Your task to perform on an android device: toggle improve location accuracy Image 0: 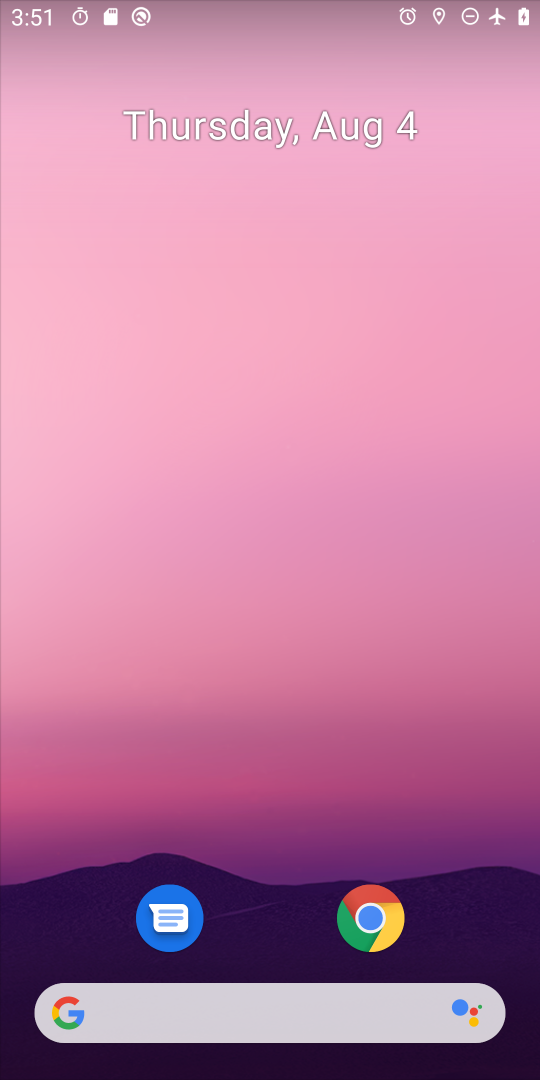
Step 0: drag from (258, 898) to (261, 260)
Your task to perform on an android device: toggle improve location accuracy Image 1: 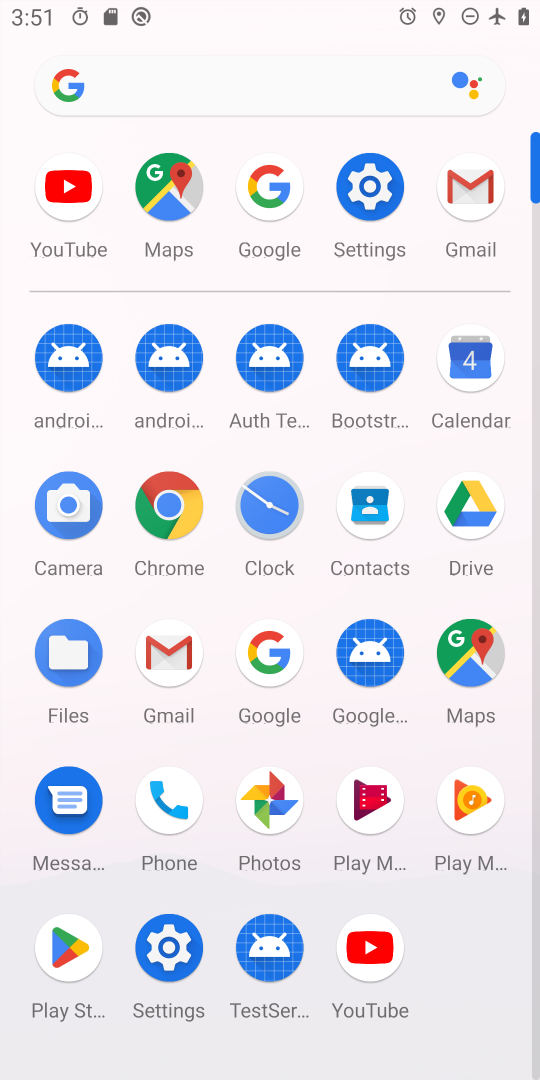
Step 1: click (389, 185)
Your task to perform on an android device: toggle improve location accuracy Image 2: 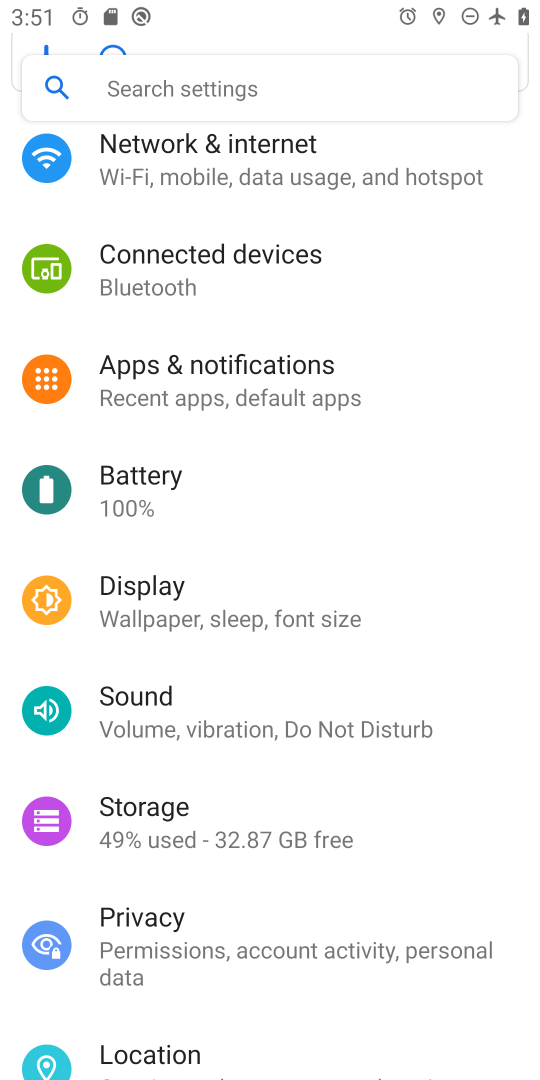
Step 2: drag from (264, 920) to (322, 446)
Your task to perform on an android device: toggle improve location accuracy Image 3: 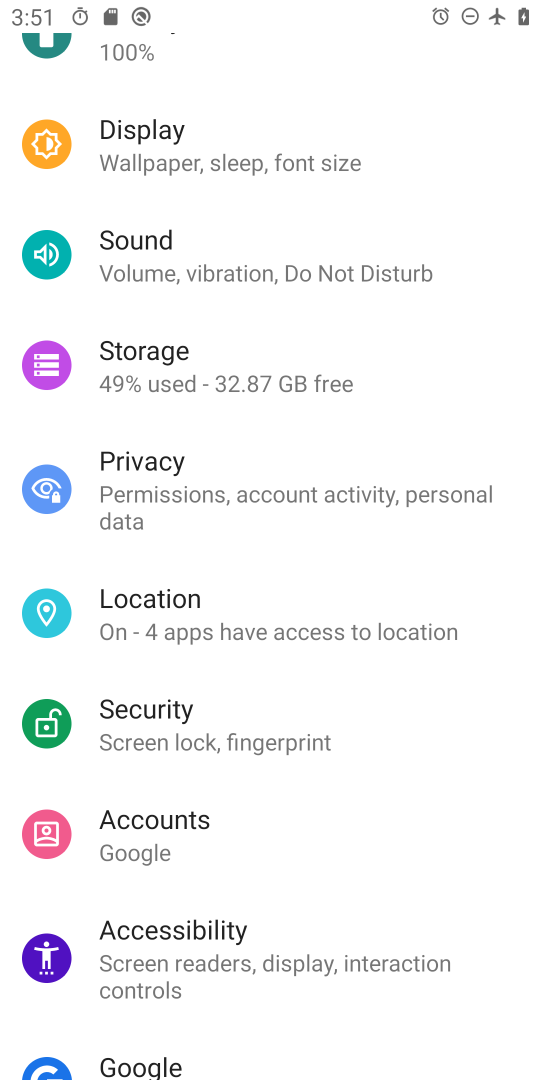
Step 3: click (273, 611)
Your task to perform on an android device: toggle improve location accuracy Image 4: 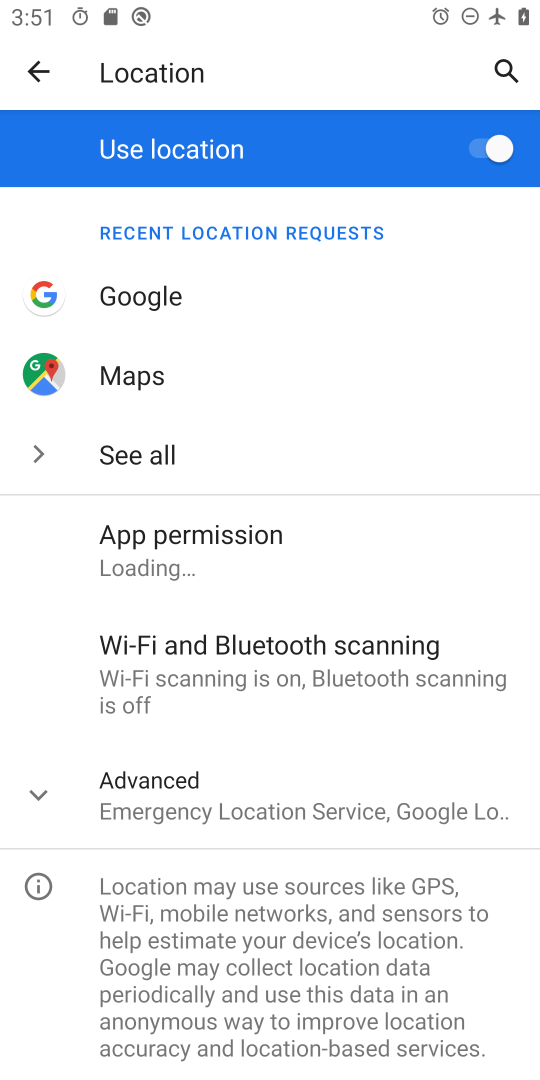
Step 4: click (269, 804)
Your task to perform on an android device: toggle improve location accuracy Image 5: 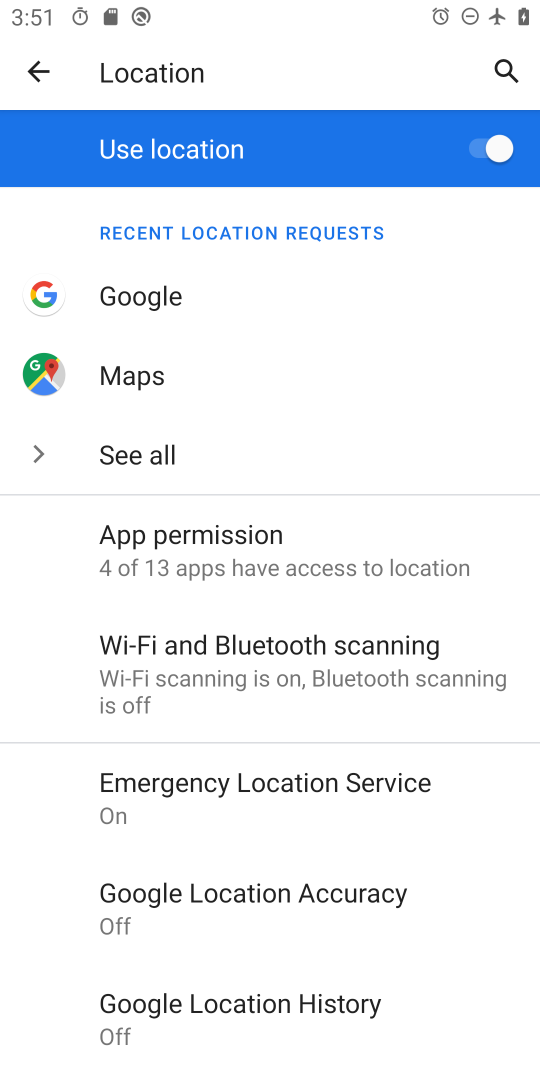
Step 5: click (329, 902)
Your task to perform on an android device: toggle improve location accuracy Image 6: 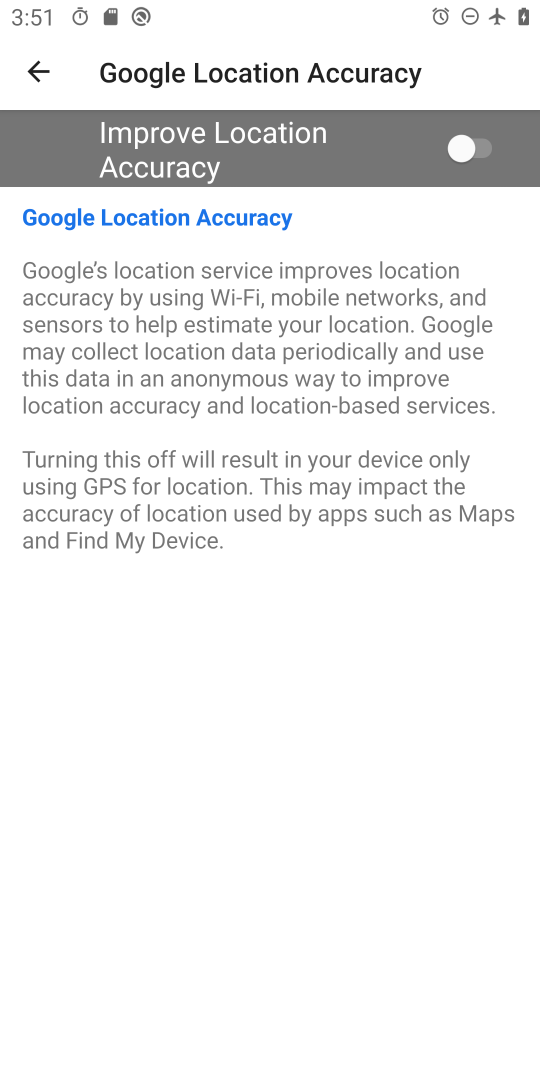
Step 6: click (477, 151)
Your task to perform on an android device: toggle improve location accuracy Image 7: 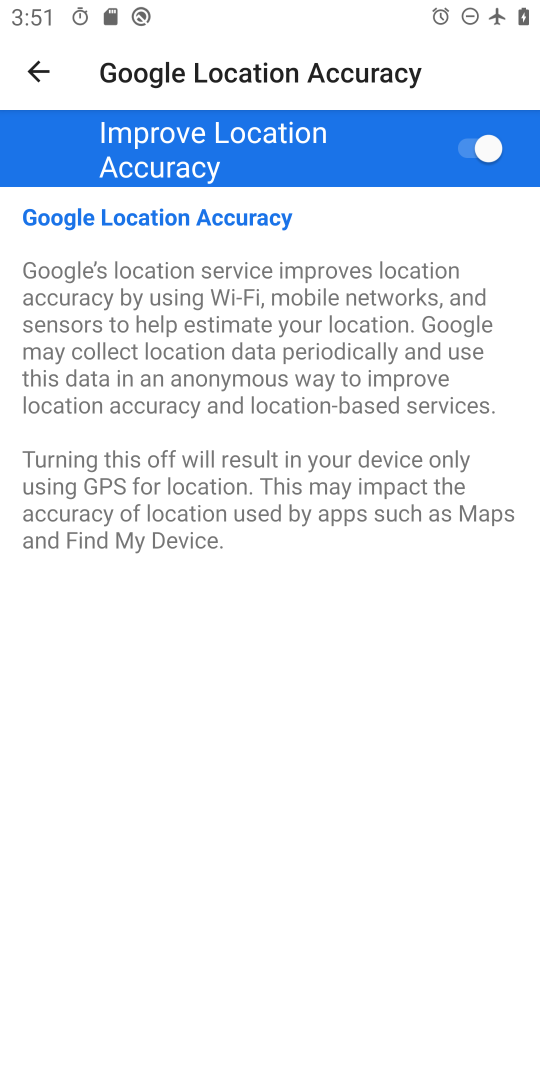
Step 7: task complete